Your task to perform on an android device: Go to Google maps Image 0: 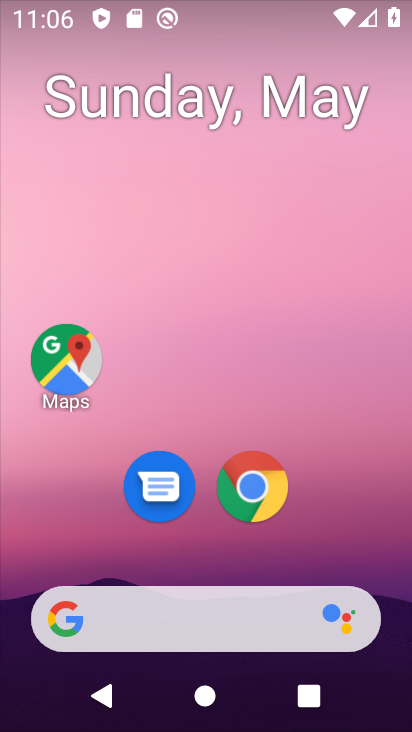
Step 0: click (409, 460)
Your task to perform on an android device: Go to Google maps Image 1: 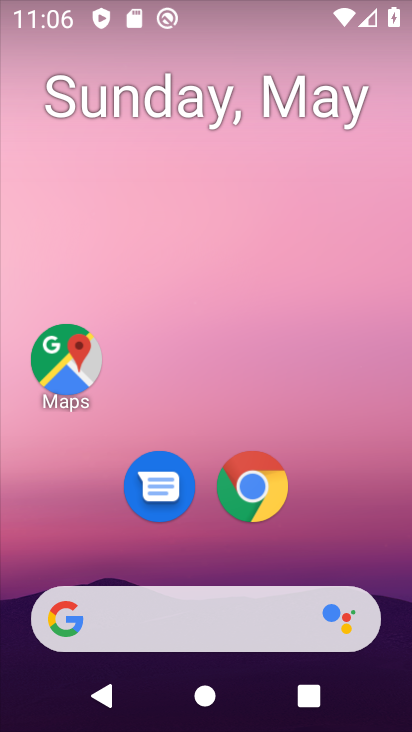
Step 1: click (77, 364)
Your task to perform on an android device: Go to Google maps Image 2: 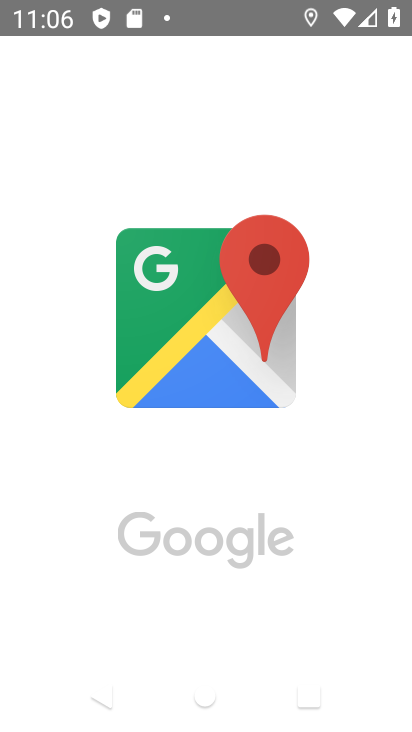
Step 2: task complete